Your task to perform on an android device: open app "Reddit" Image 0: 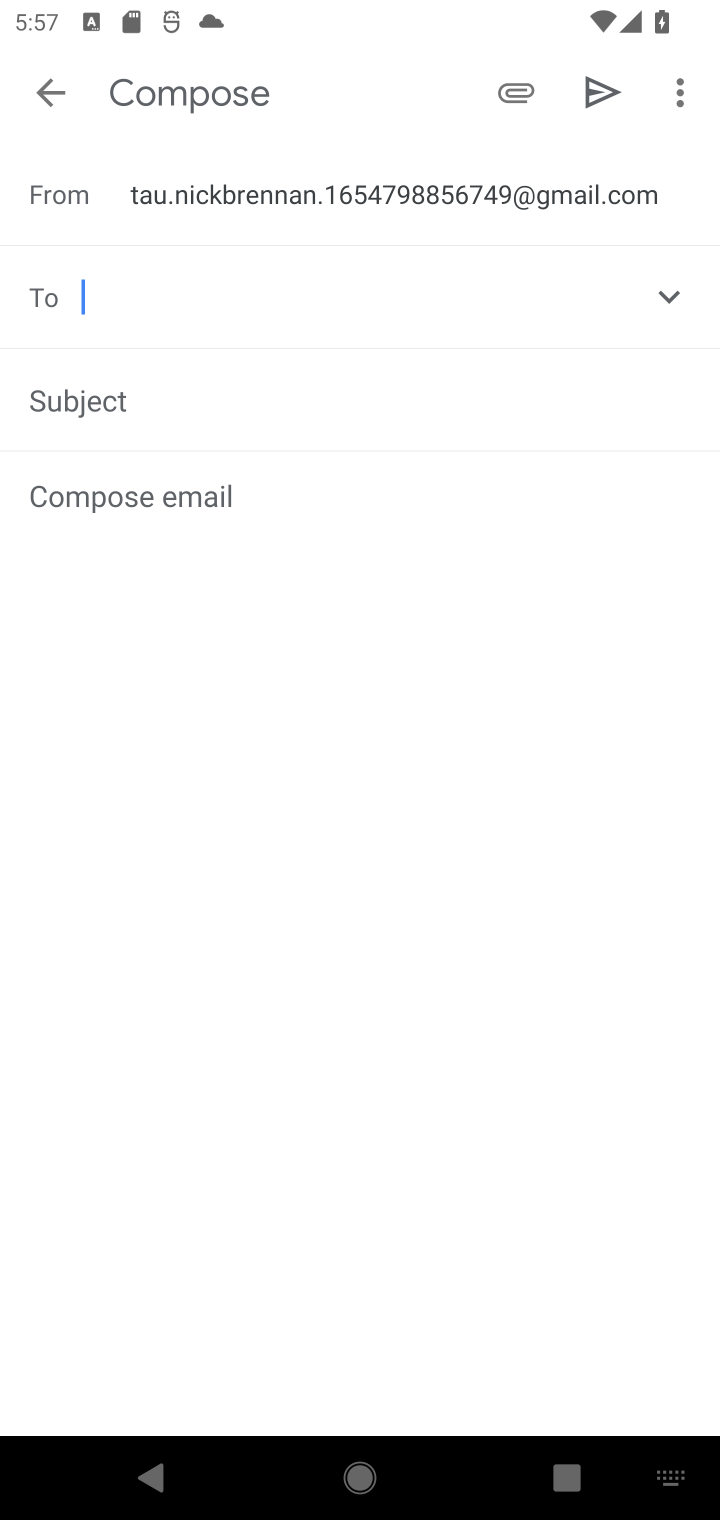
Step 0: press home button
Your task to perform on an android device: open app "Reddit" Image 1: 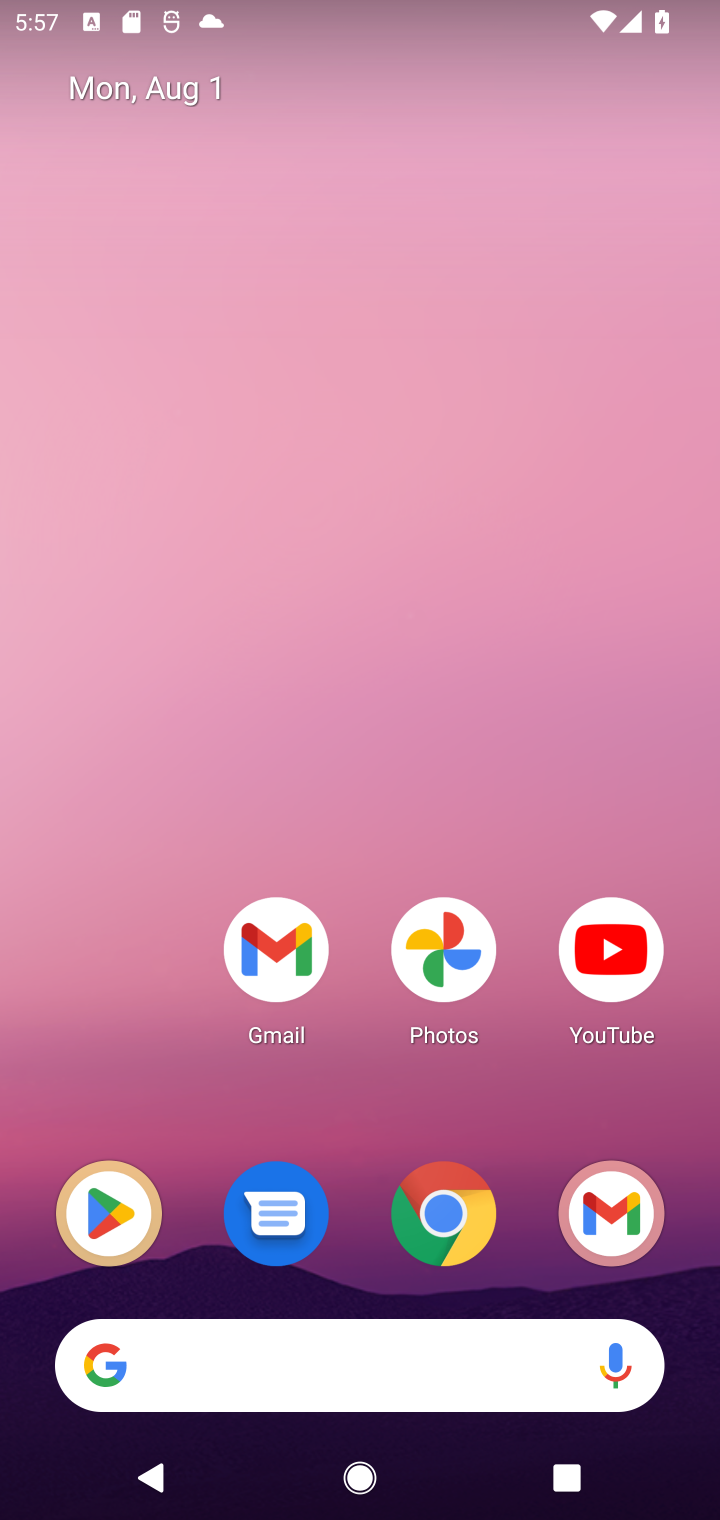
Step 1: drag from (535, 1138) to (470, 81)
Your task to perform on an android device: open app "Reddit" Image 2: 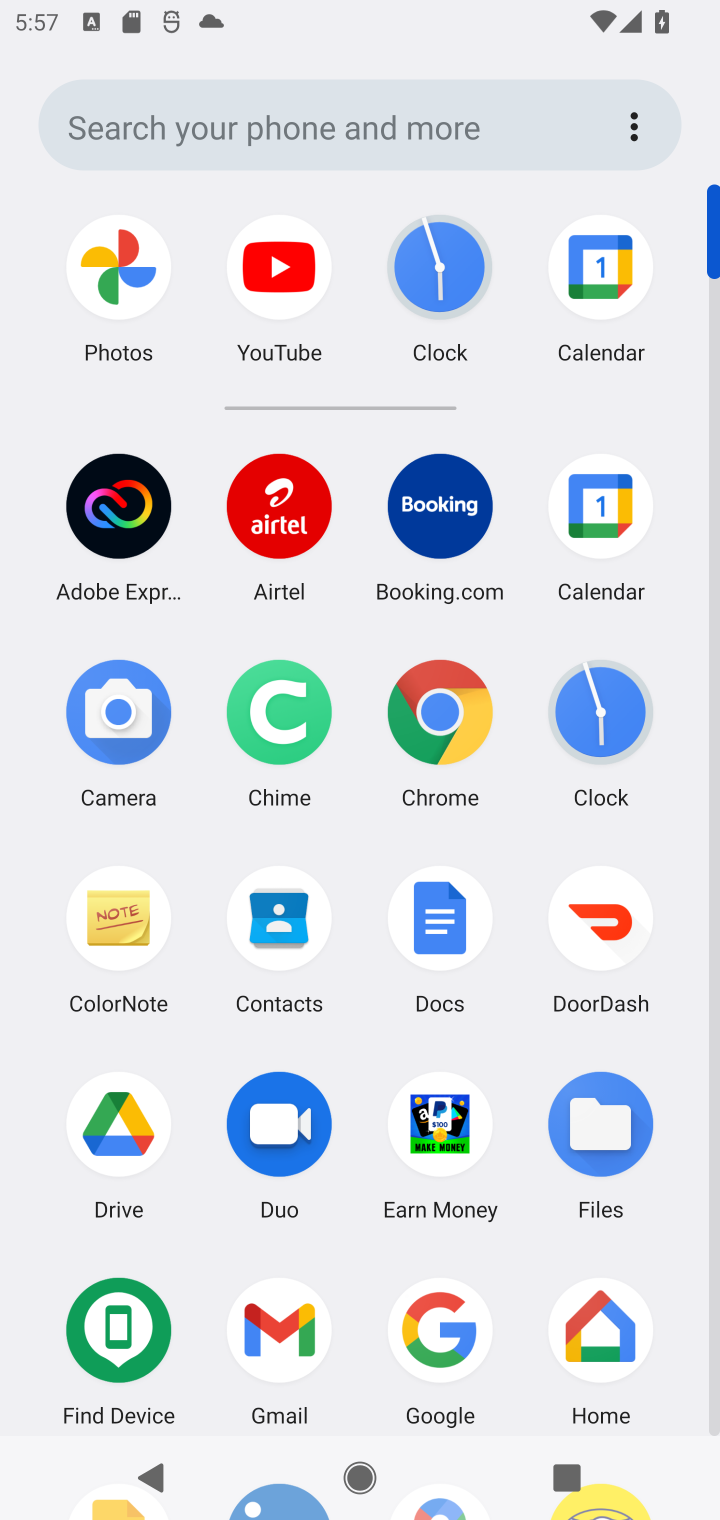
Step 2: drag from (542, 1271) to (558, 387)
Your task to perform on an android device: open app "Reddit" Image 3: 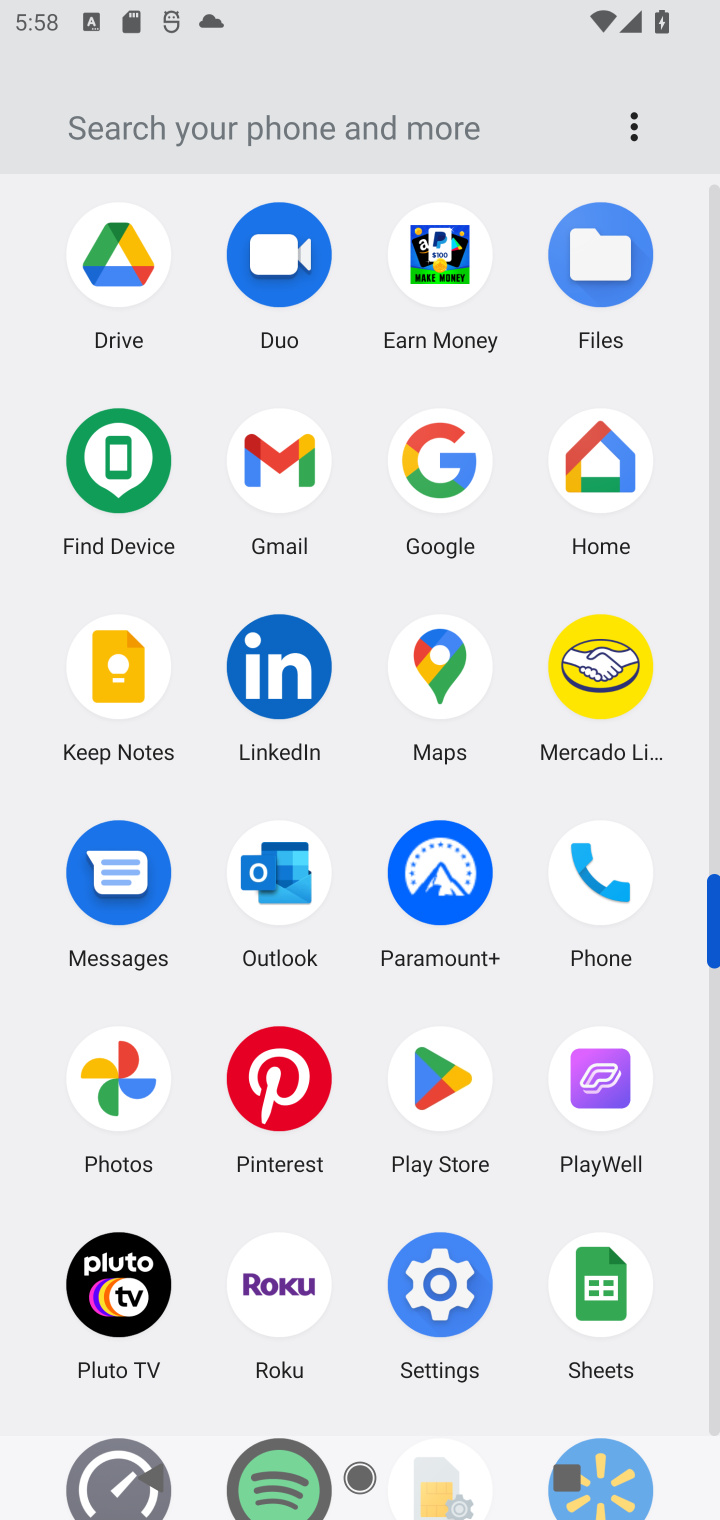
Step 3: click (431, 1100)
Your task to perform on an android device: open app "Reddit" Image 4: 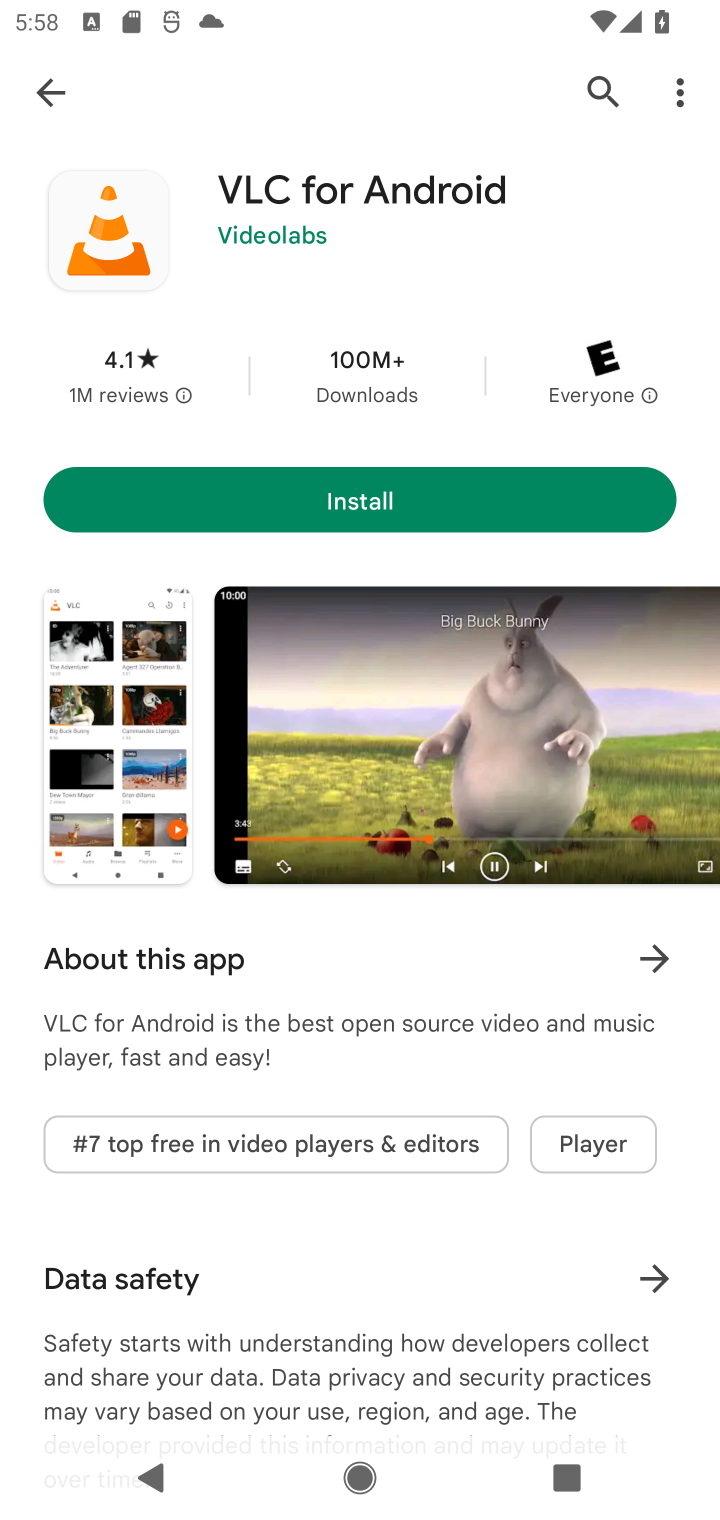
Step 4: click (602, 79)
Your task to perform on an android device: open app "Reddit" Image 5: 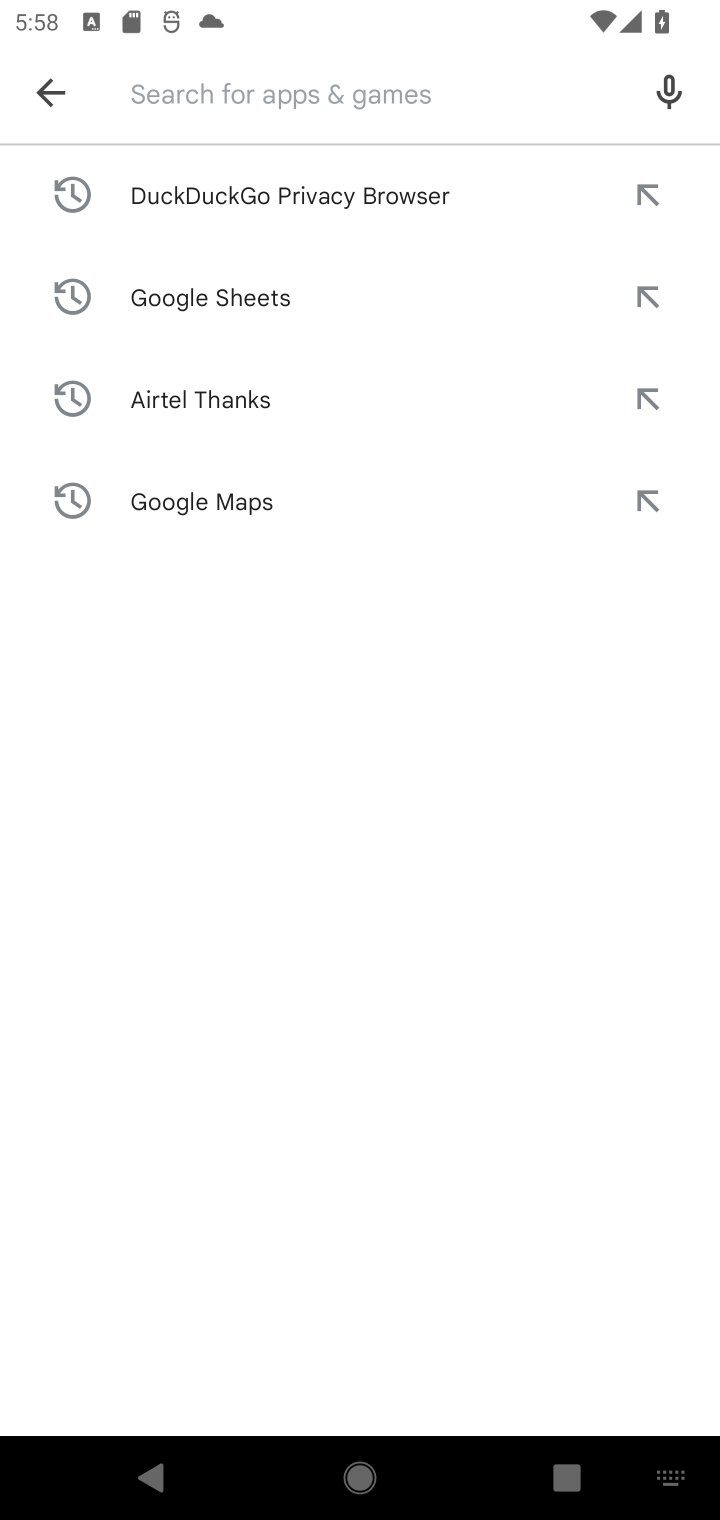
Step 5: type "Reddit"
Your task to perform on an android device: open app "Reddit" Image 6: 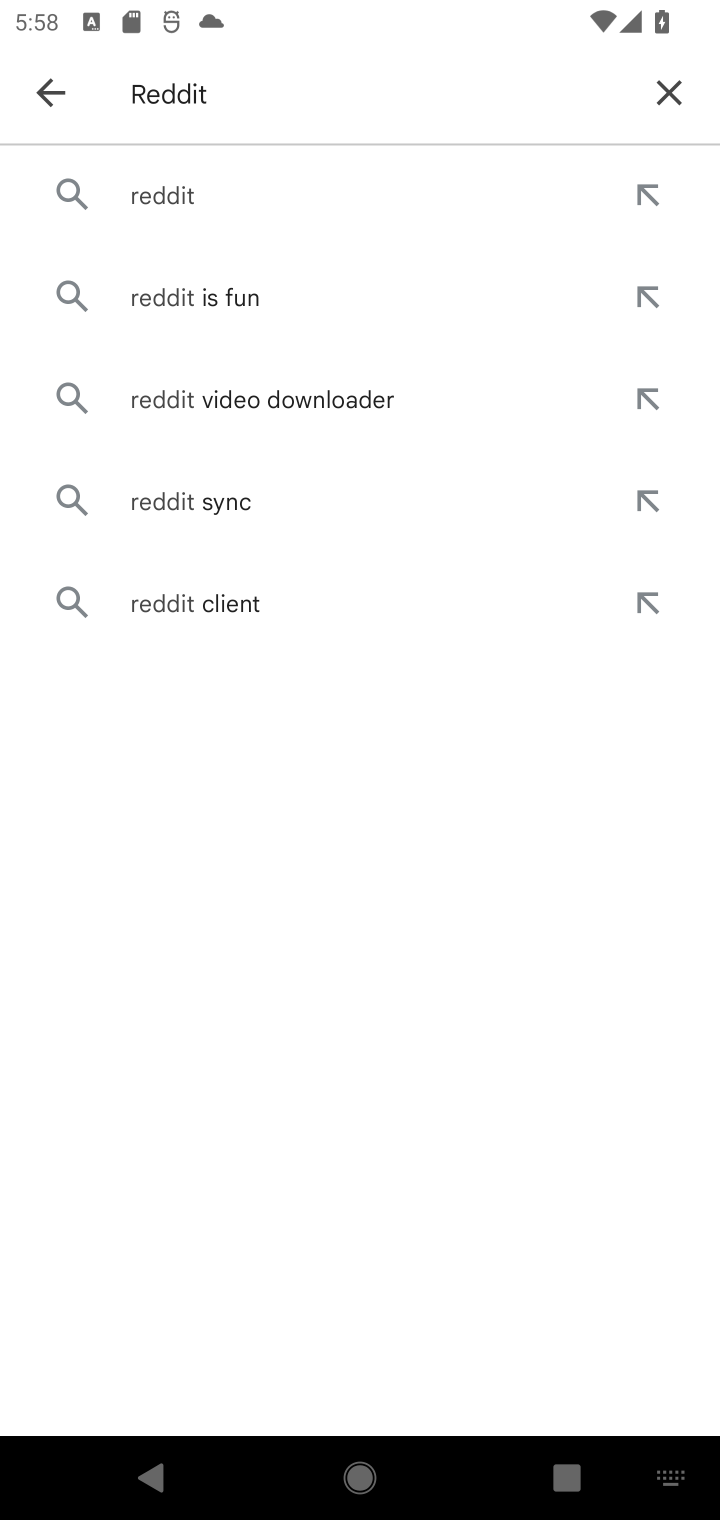
Step 6: press enter
Your task to perform on an android device: open app "Reddit" Image 7: 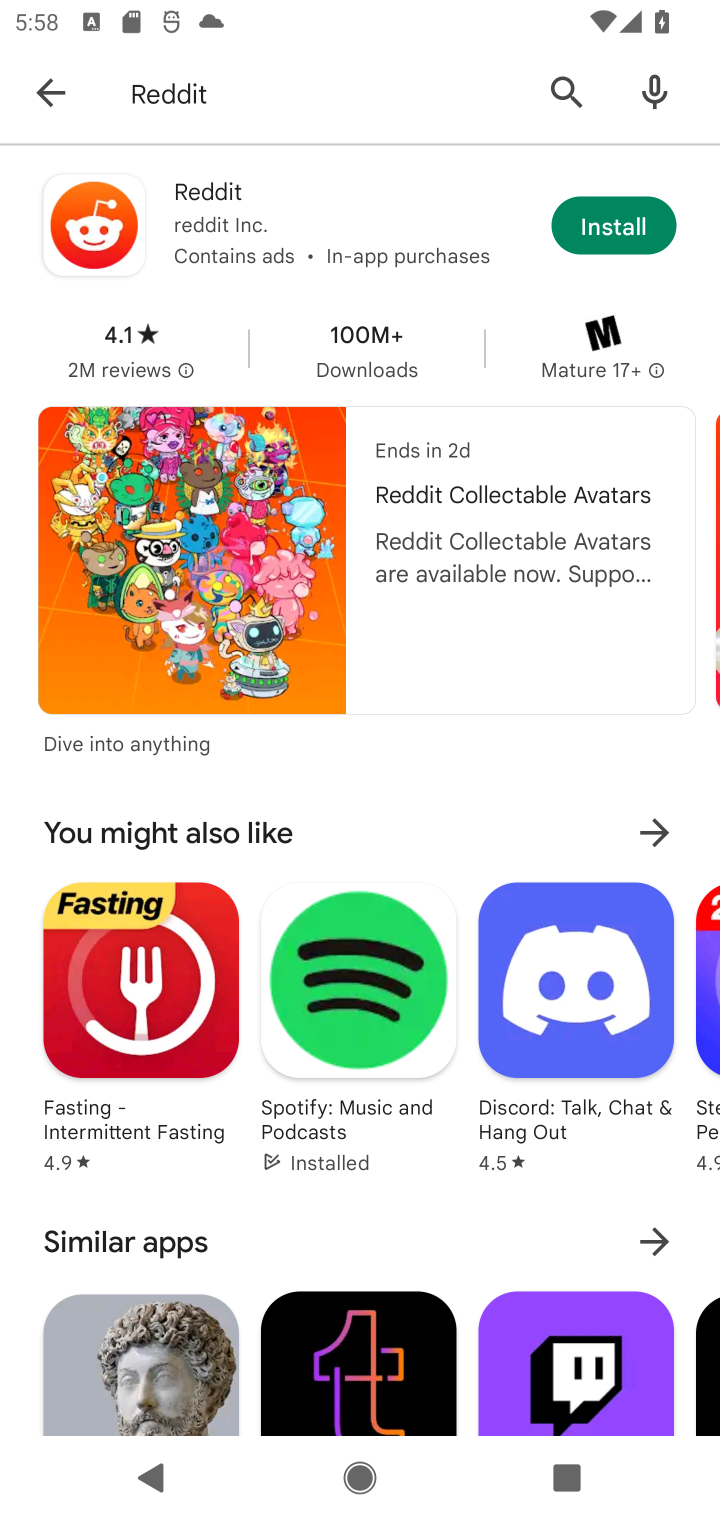
Step 7: click (393, 206)
Your task to perform on an android device: open app "Reddit" Image 8: 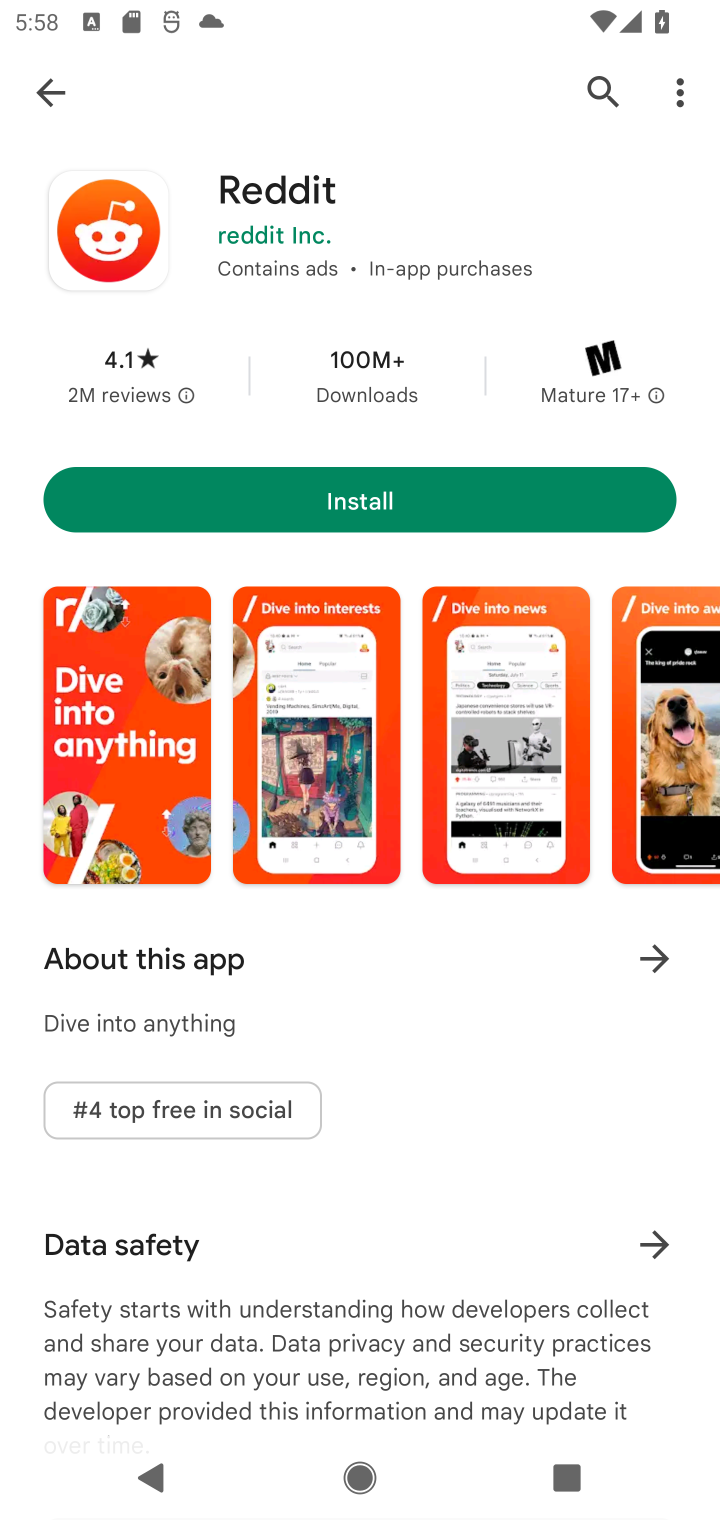
Step 8: task complete